Your task to perform on an android device: Search for razer blade on ebay.com, select the first entry, and add it to the cart. Image 0: 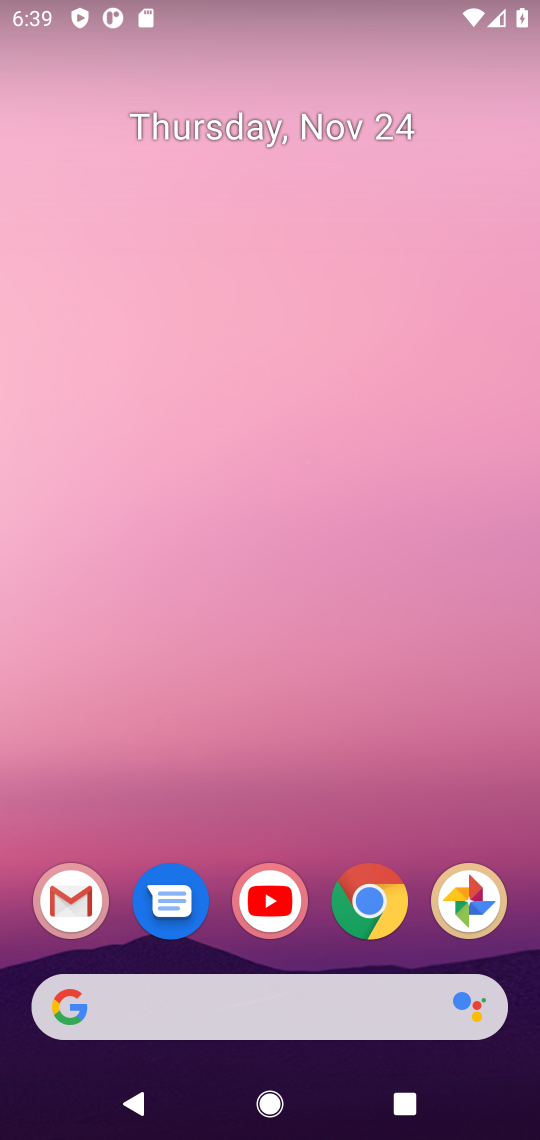
Step 0: click (373, 913)
Your task to perform on an android device: Search for razer blade on ebay.com, select the first entry, and add it to the cart. Image 1: 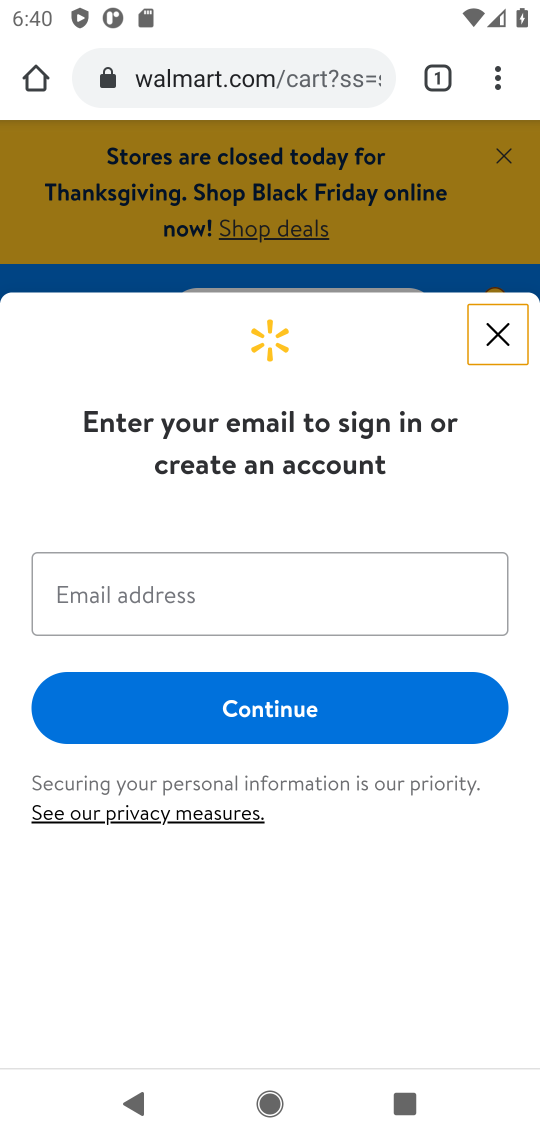
Step 1: click (308, 79)
Your task to perform on an android device: Search for razer blade on ebay.com, select the first entry, and add it to the cart. Image 2: 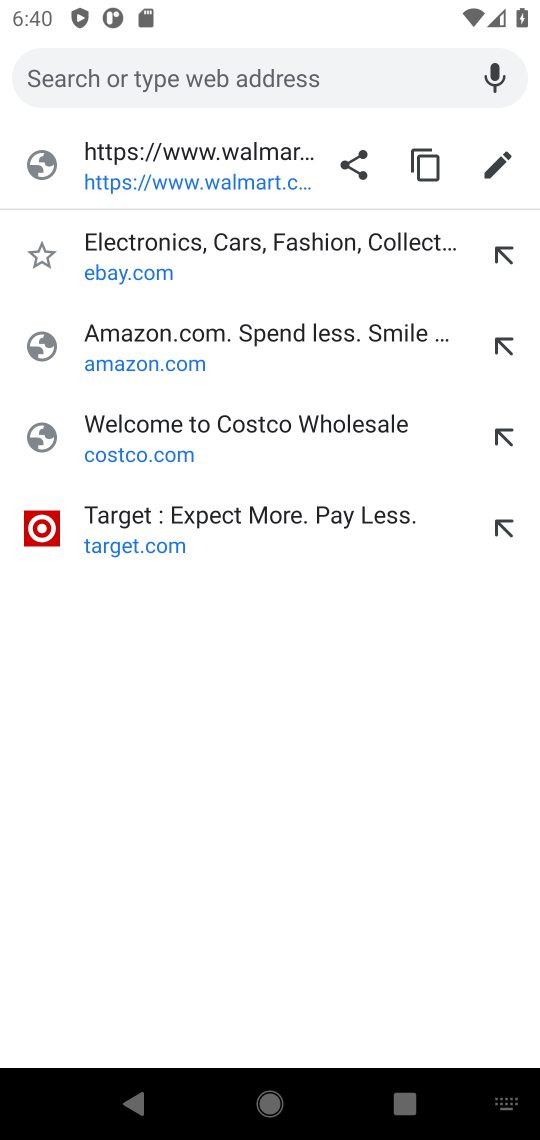
Step 2: click (292, 268)
Your task to perform on an android device: Search for razer blade on ebay.com, select the first entry, and add it to the cart. Image 3: 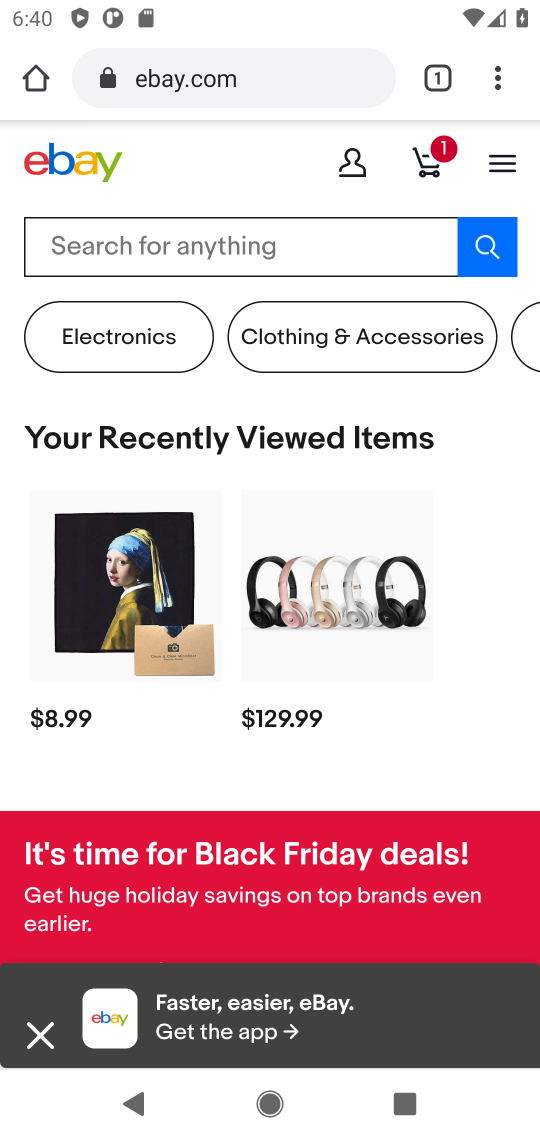
Step 3: click (272, 238)
Your task to perform on an android device: Search for razer blade on ebay.com, select the first entry, and add it to the cart. Image 4: 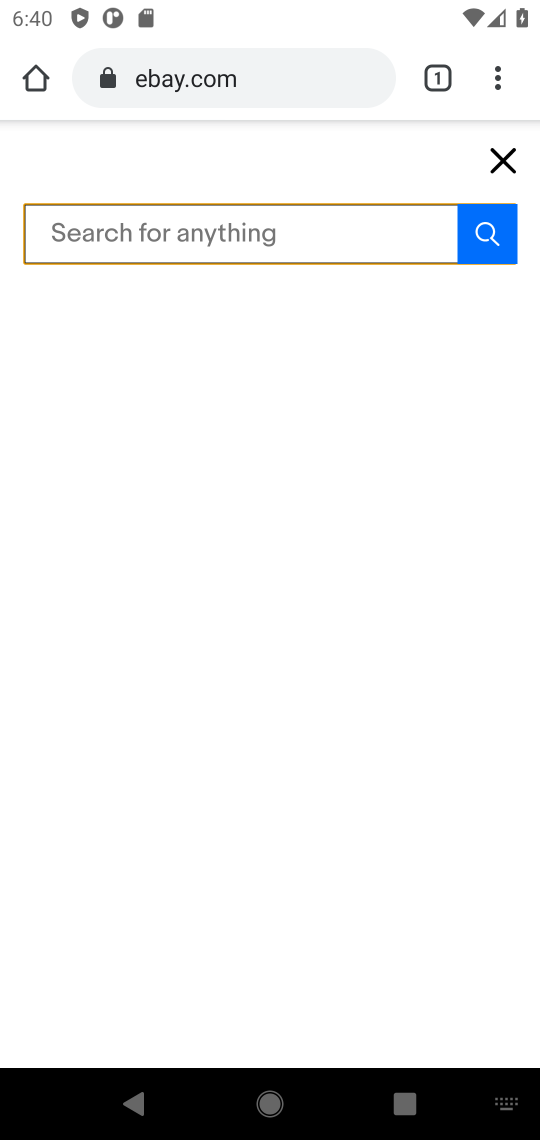
Step 4: type "razer blade"
Your task to perform on an android device: Search for razer blade on ebay.com, select the first entry, and add it to the cart. Image 5: 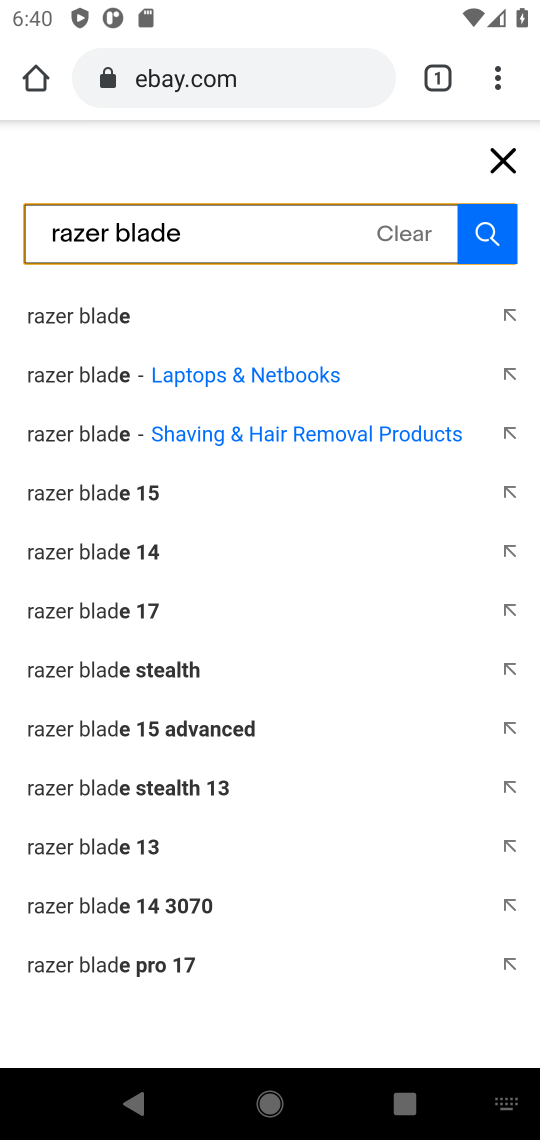
Step 5: click (217, 294)
Your task to perform on an android device: Search for razer blade on ebay.com, select the first entry, and add it to the cart. Image 6: 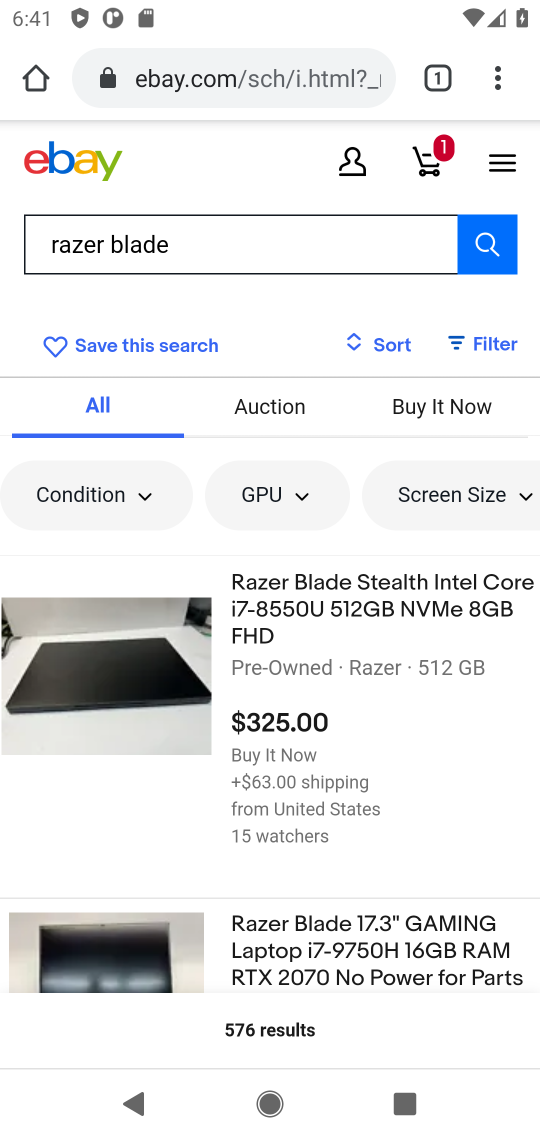
Step 6: click (287, 610)
Your task to perform on an android device: Search for razer blade on ebay.com, select the first entry, and add it to the cart. Image 7: 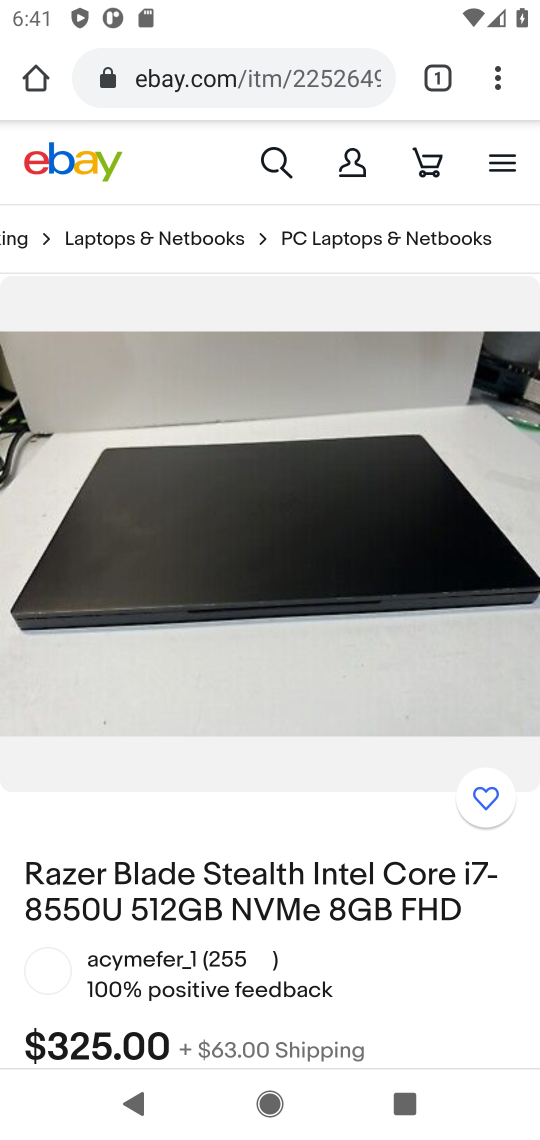
Step 7: drag from (277, 918) to (263, 504)
Your task to perform on an android device: Search for razer blade on ebay.com, select the first entry, and add it to the cart. Image 8: 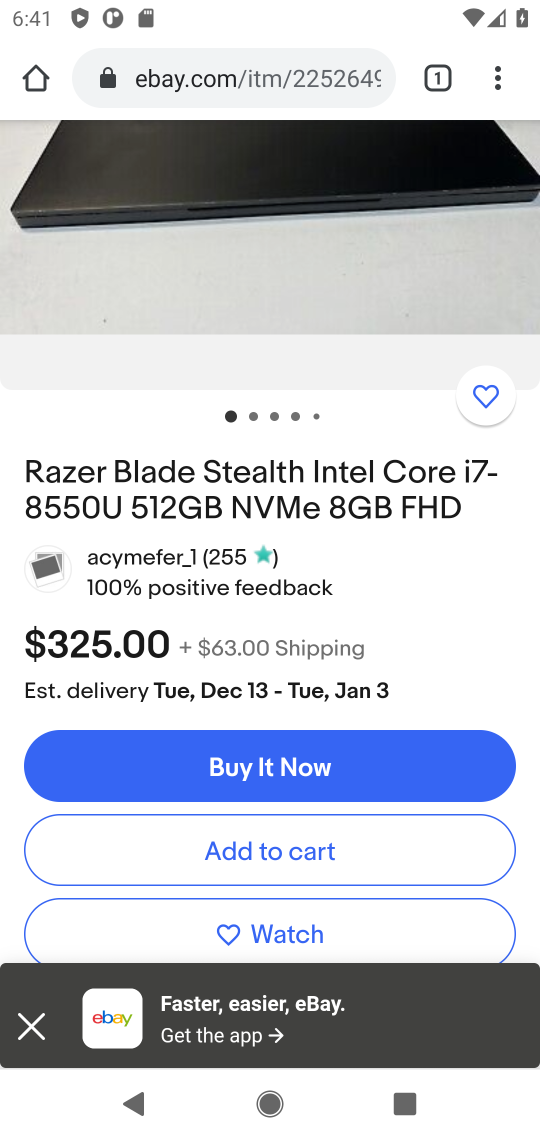
Step 8: click (323, 861)
Your task to perform on an android device: Search for razer blade on ebay.com, select the first entry, and add it to the cart. Image 9: 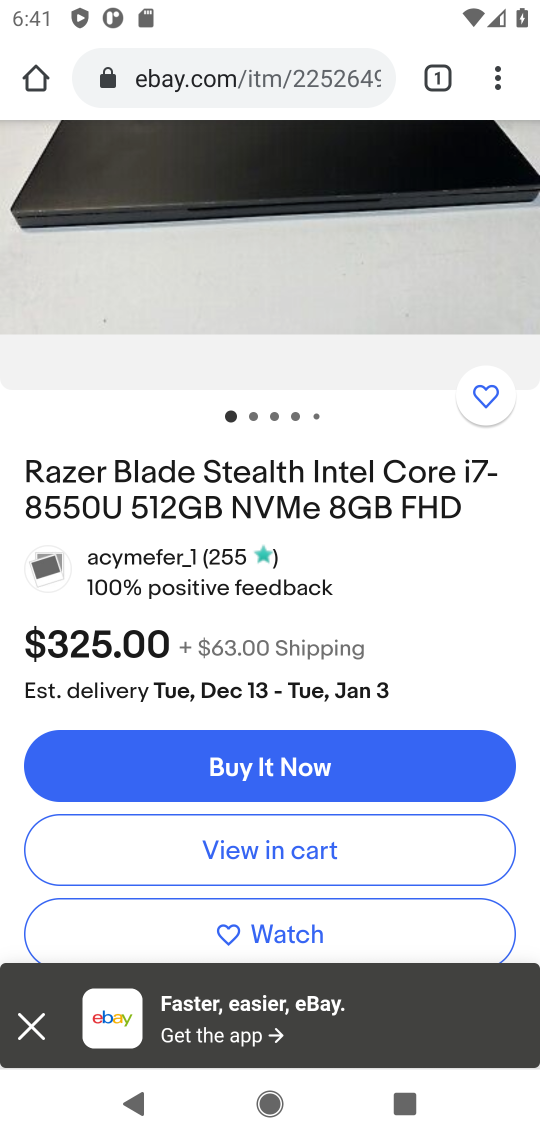
Step 9: task complete